Your task to perform on an android device: delete location history Image 0: 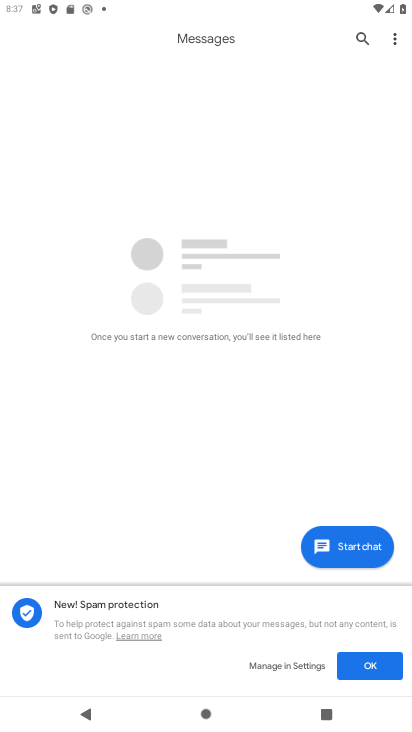
Step 0: press home button
Your task to perform on an android device: delete location history Image 1: 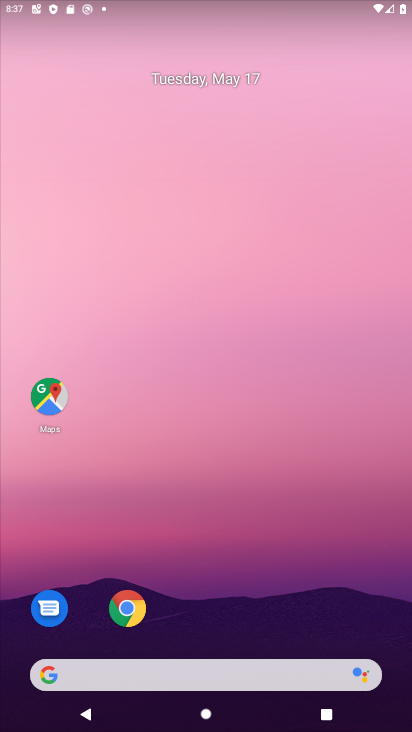
Step 1: click (40, 393)
Your task to perform on an android device: delete location history Image 2: 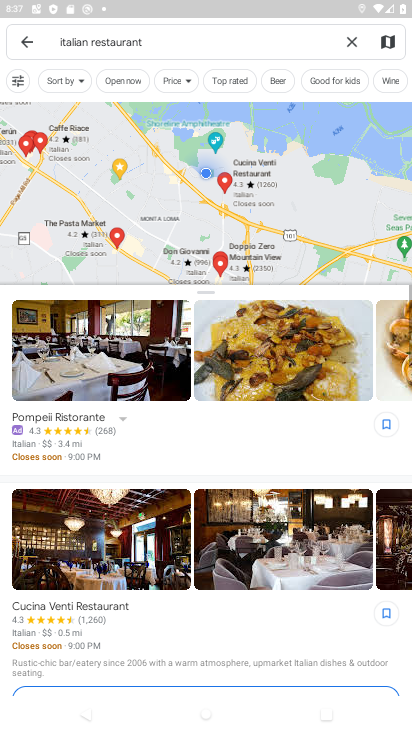
Step 2: click (32, 34)
Your task to perform on an android device: delete location history Image 3: 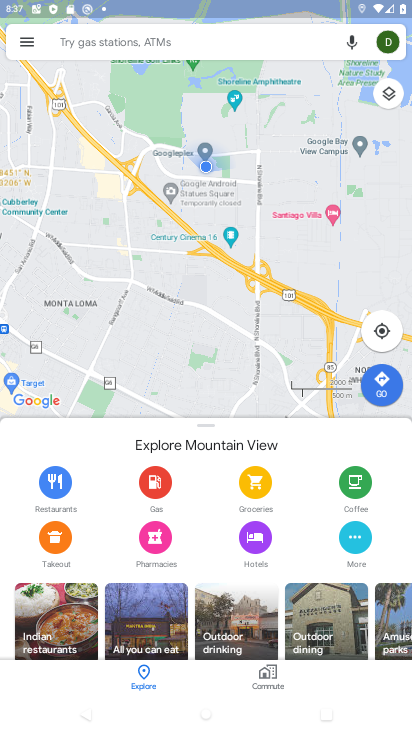
Step 3: click (32, 34)
Your task to perform on an android device: delete location history Image 4: 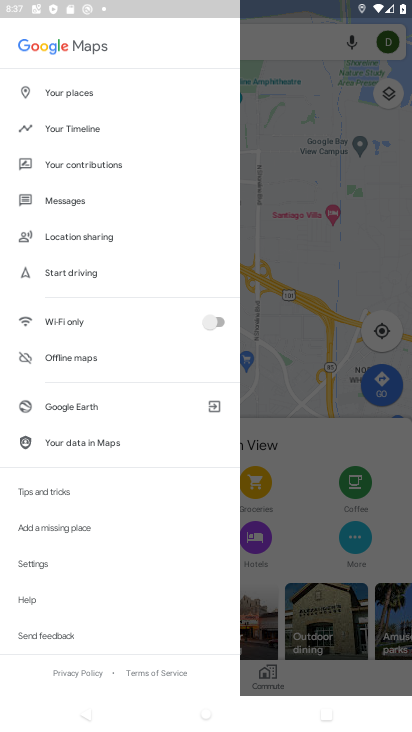
Step 4: click (79, 137)
Your task to perform on an android device: delete location history Image 5: 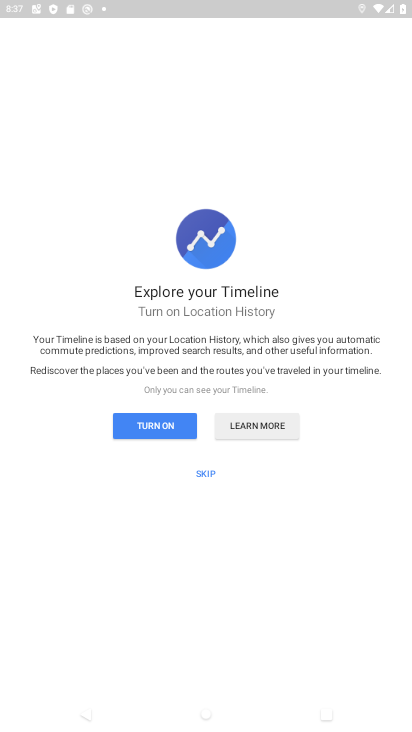
Step 5: click (158, 429)
Your task to perform on an android device: delete location history Image 6: 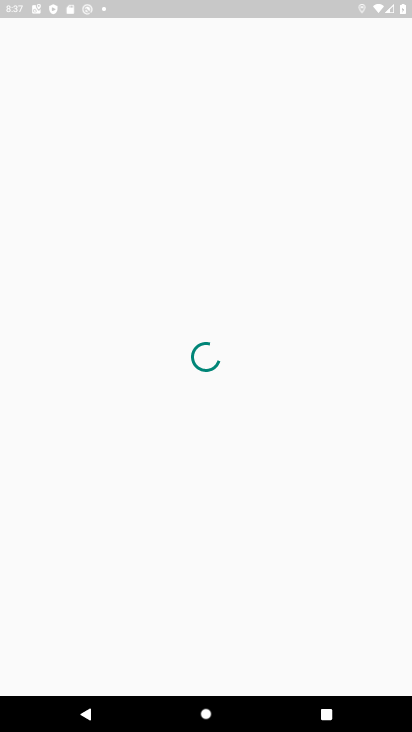
Step 6: click (405, 33)
Your task to perform on an android device: delete location history Image 7: 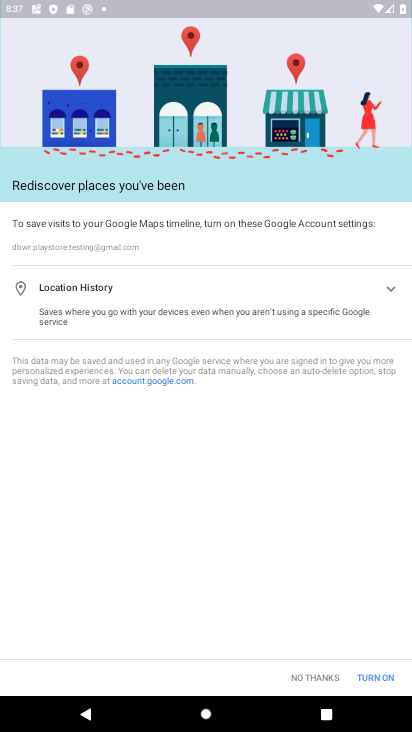
Step 7: click (118, 302)
Your task to perform on an android device: delete location history Image 8: 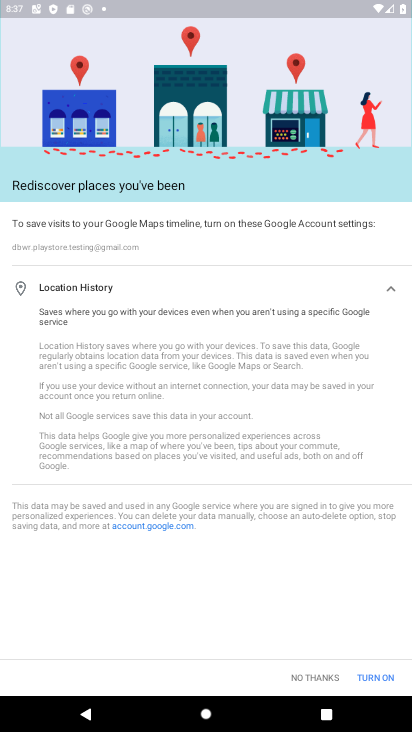
Step 8: click (317, 673)
Your task to perform on an android device: delete location history Image 9: 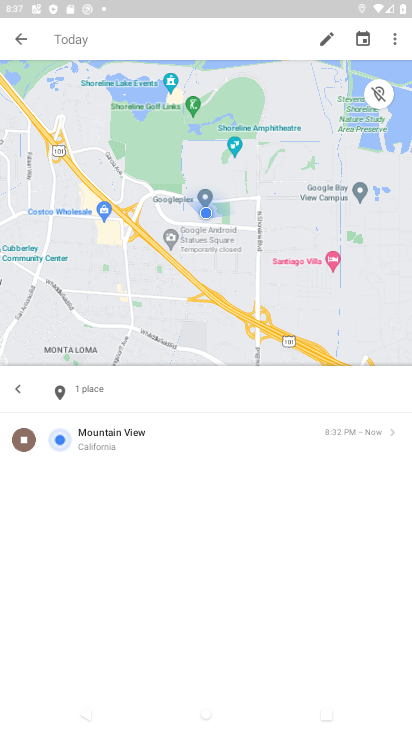
Step 9: click (390, 45)
Your task to perform on an android device: delete location history Image 10: 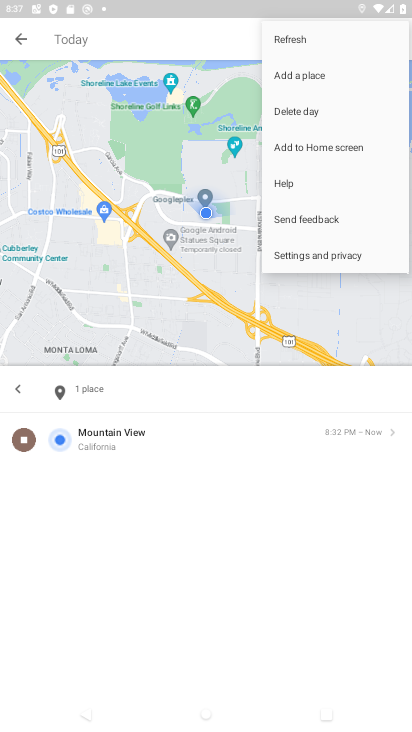
Step 10: click (297, 253)
Your task to perform on an android device: delete location history Image 11: 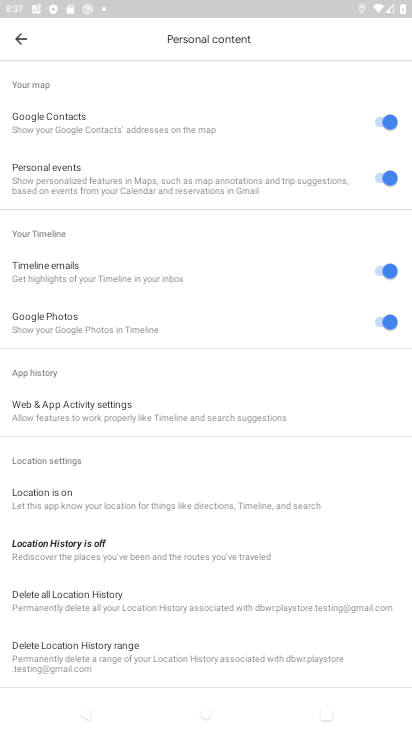
Step 11: click (77, 596)
Your task to perform on an android device: delete location history Image 12: 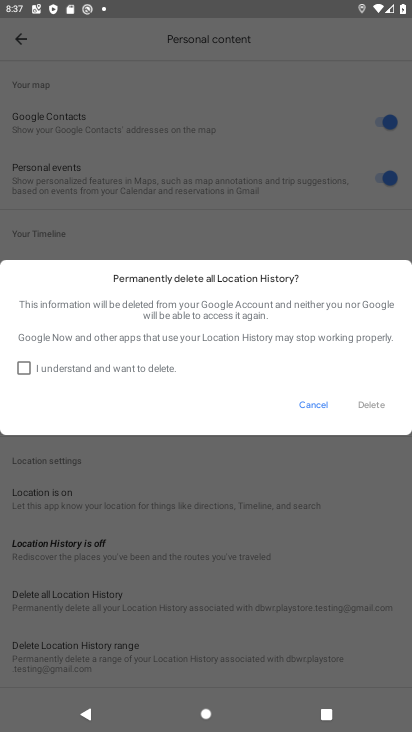
Step 12: click (22, 364)
Your task to perform on an android device: delete location history Image 13: 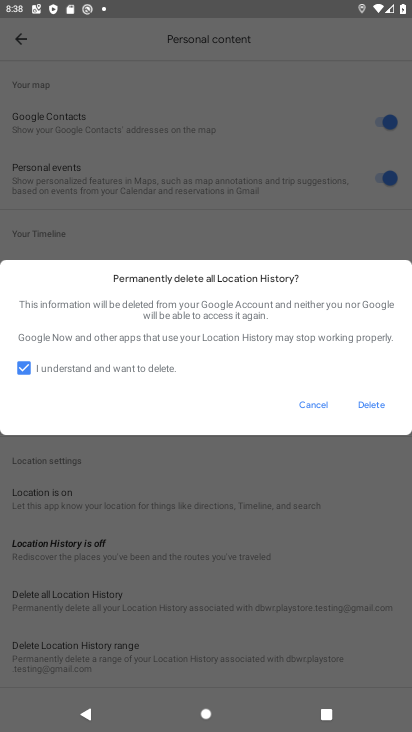
Step 13: click (375, 407)
Your task to perform on an android device: delete location history Image 14: 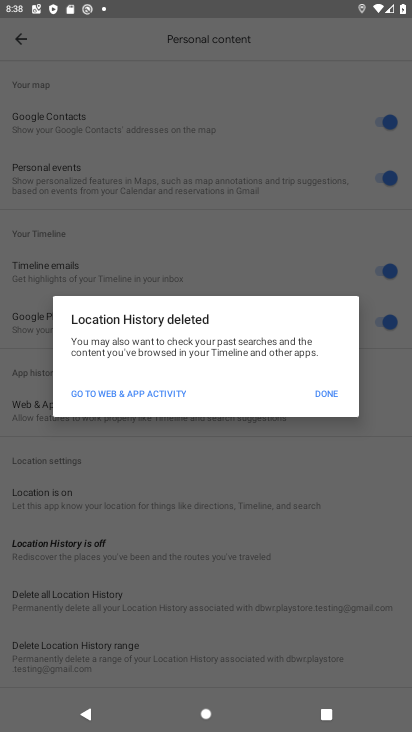
Step 14: task complete